Your task to perform on an android device: Open location settings Image 0: 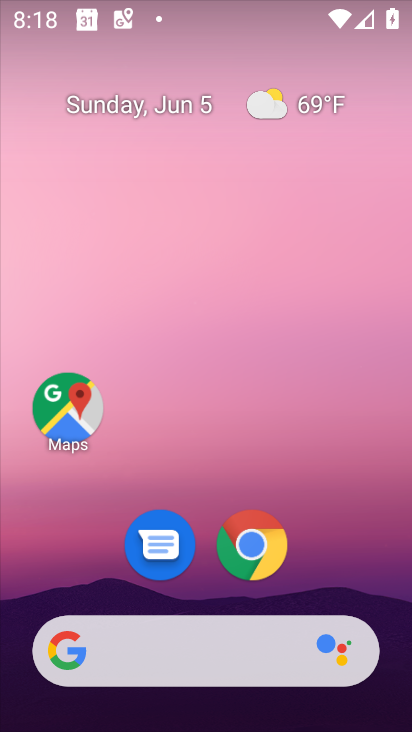
Step 0: drag from (376, 540) to (397, 177)
Your task to perform on an android device: Open location settings Image 1: 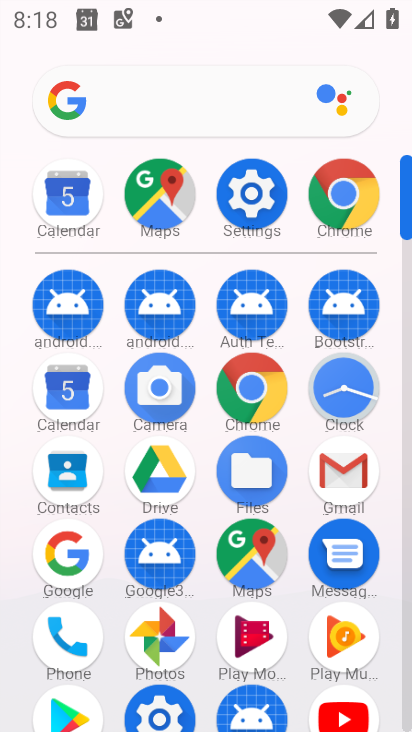
Step 1: click (266, 207)
Your task to perform on an android device: Open location settings Image 2: 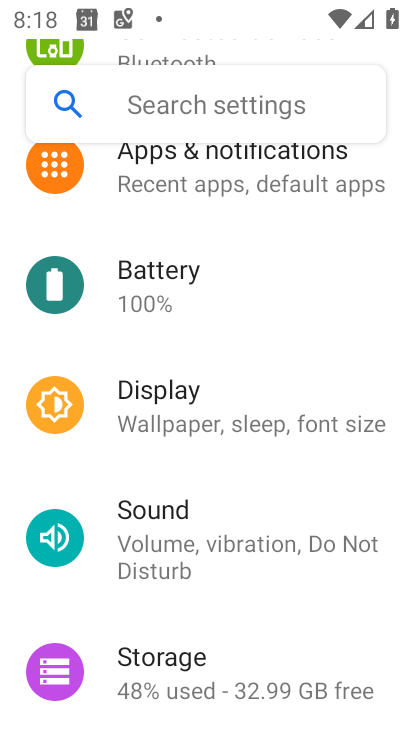
Step 2: drag from (331, 360) to (361, 248)
Your task to perform on an android device: Open location settings Image 3: 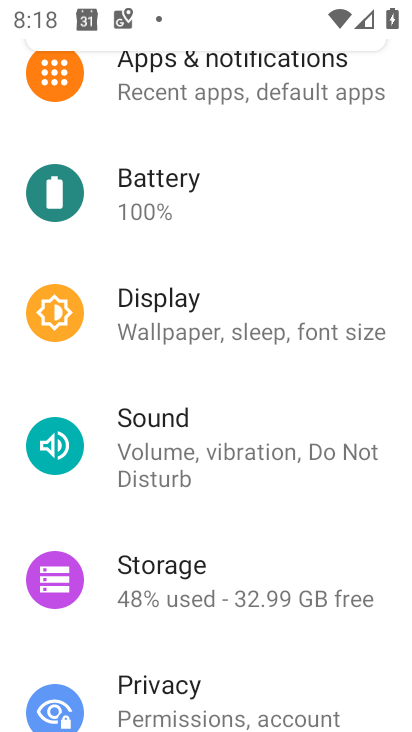
Step 3: drag from (354, 521) to (339, 320)
Your task to perform on an android device: Open location settings Image 4: 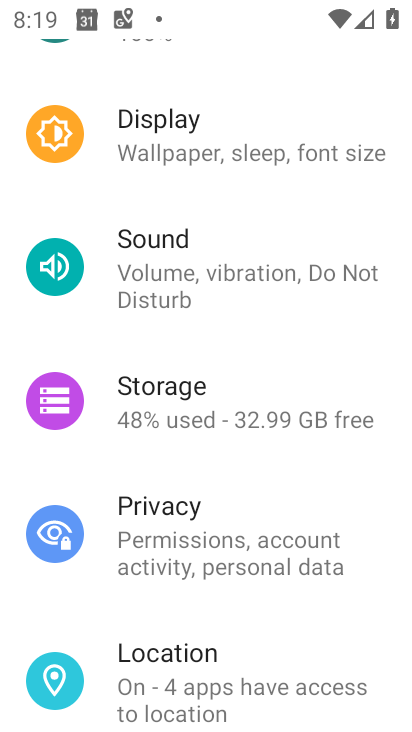
Step 4: drag from (341, 491) to (336, 305)
Your task to perform on an android device: Open location settings Image 5: 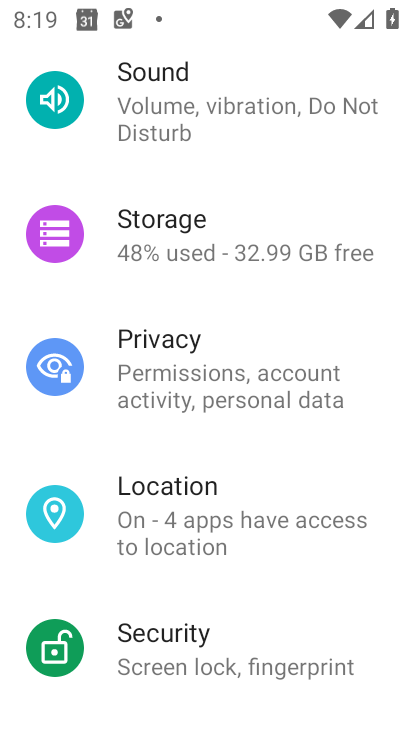
Step 5: click (351, 517)
Your task to perform on an android device: Open location settings Image 6: 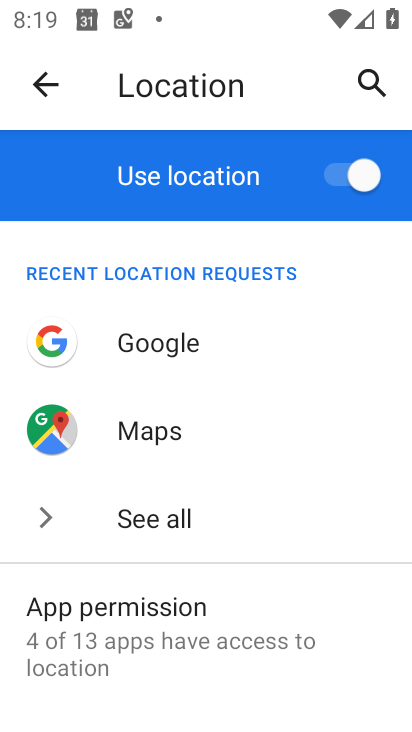
Step 6: task complete